Your task to perform on an android device: change the clock display to show seconds Image 0: 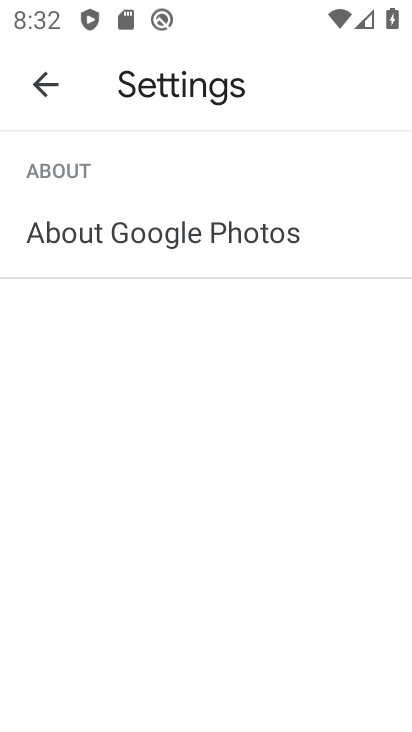
Step 0: press home button
Your task to perform on an android device: change the clock display to show seconds Image 1: 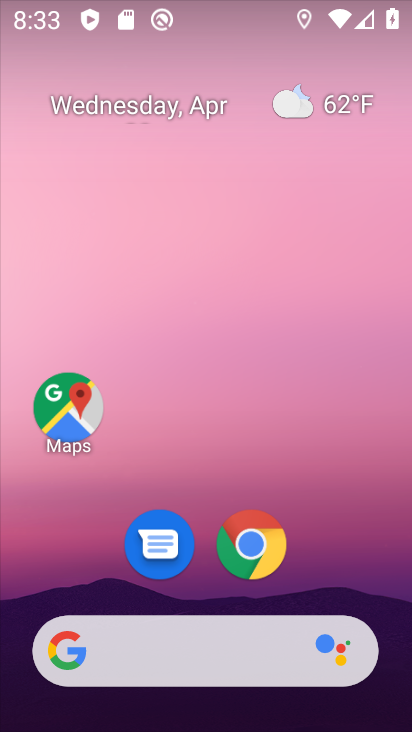
Step 1: drag from (336, 560) to (204, 134)
Your task to perform on an android device: change the clock display to show seconds Image 2: 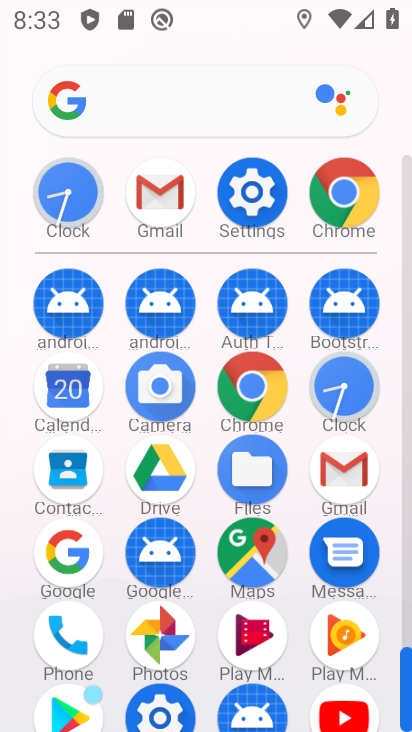
Step 2: click (327, 394)
Your task to perform on an android device: change the clock display to show seconds Image 3: 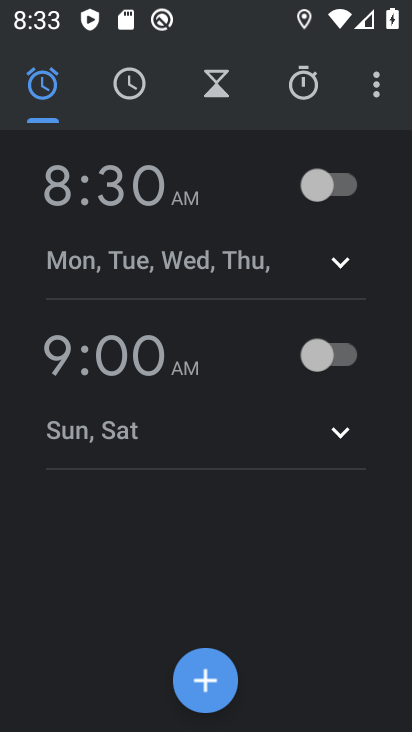
Step 3: click (380, 88)
Your task to perform on an android device: change the clock display to show seconds Image 4: 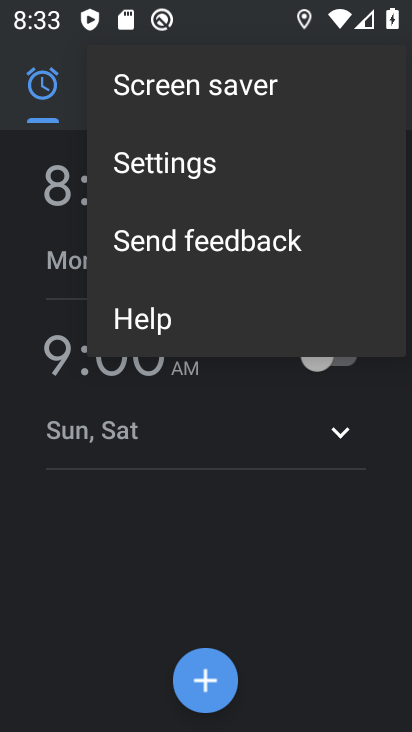
Step 4: click (224, 172)
Your task to perform on an android device: change the clock display to show seconds Image 5: 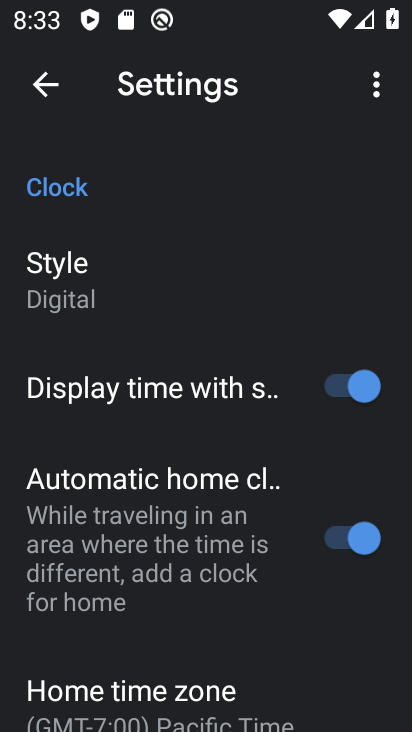
Step 5: click (364, 396)
Your task to perform on an android device: change the clock display to show seconds Image 6: 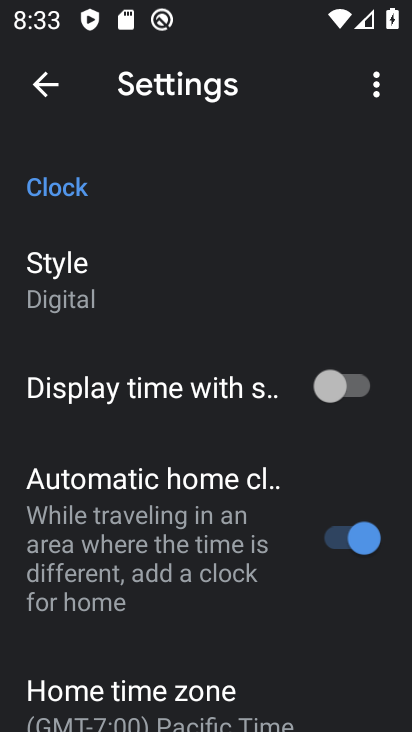
Step 6: task complete